Your task to perform on an android device: Open Amazon Image 0: 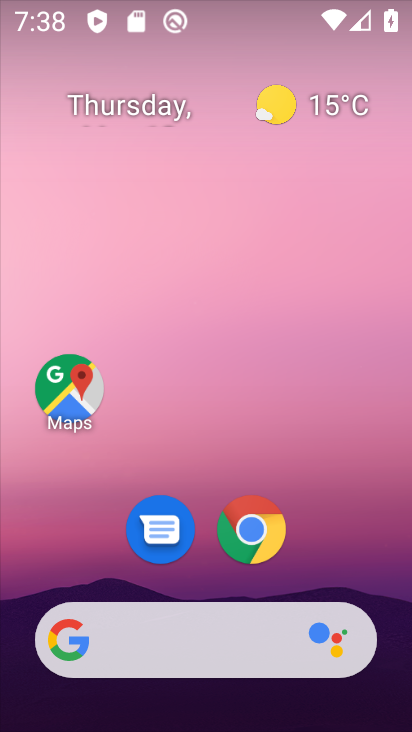
Step 0: click (251, 531)
Your task to perform on an android device: Open Amazon Image 1: 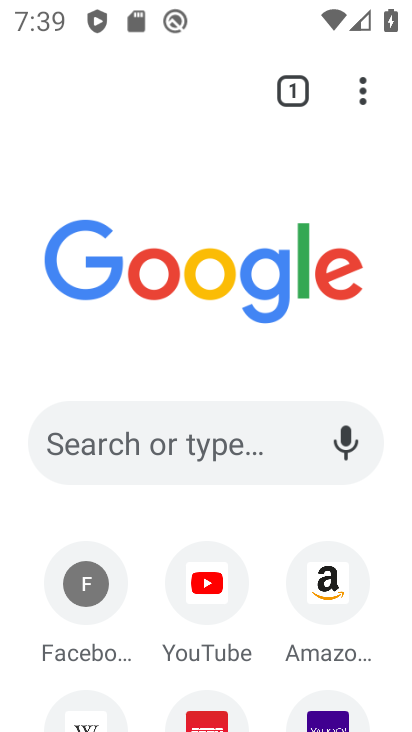
Step 1: click (331, 565)
Your task to perform on an android device: Open Amazon Image 2: 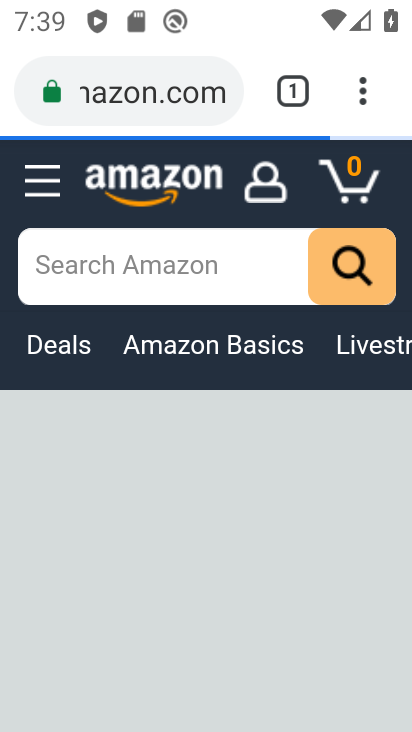
Step 2: task complete